Your task to perform on an android device: Open eBay Image 0: 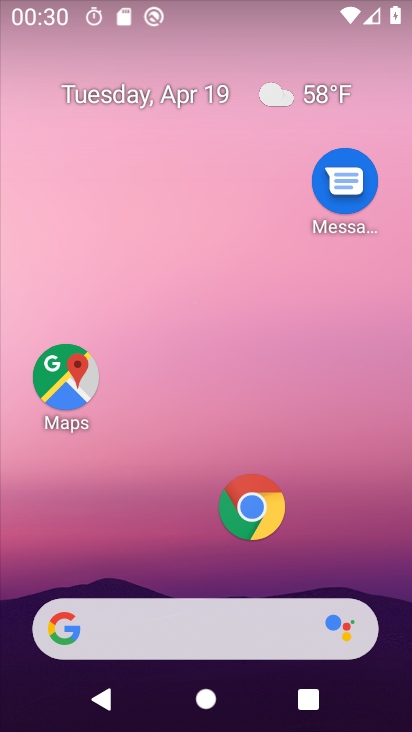
Step 0: click (270, 496)
Your task to perform on an android device: Open eBay Image 1: 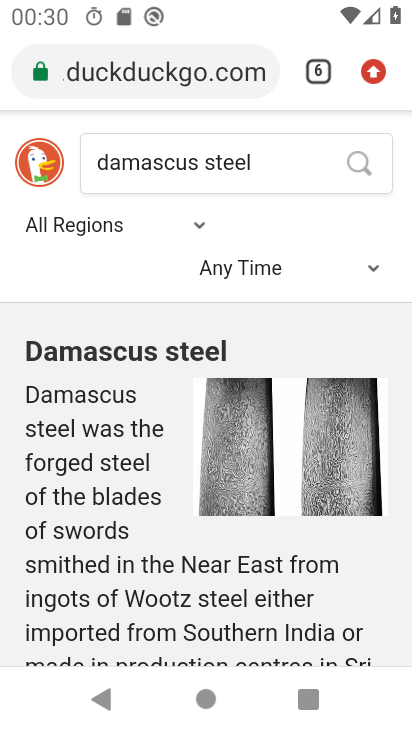
Step 1: click (170, 77)
Your task to perform on an android device: Open eBay Image 2: 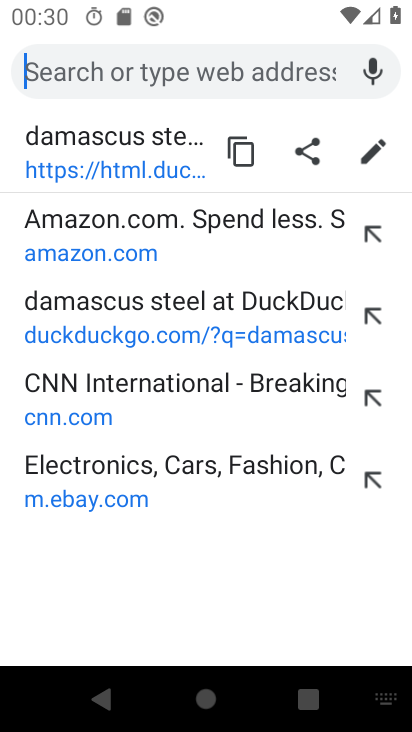
Step 2: type "eBay"
Your task to perform on an android device: Open eBay Image 3: 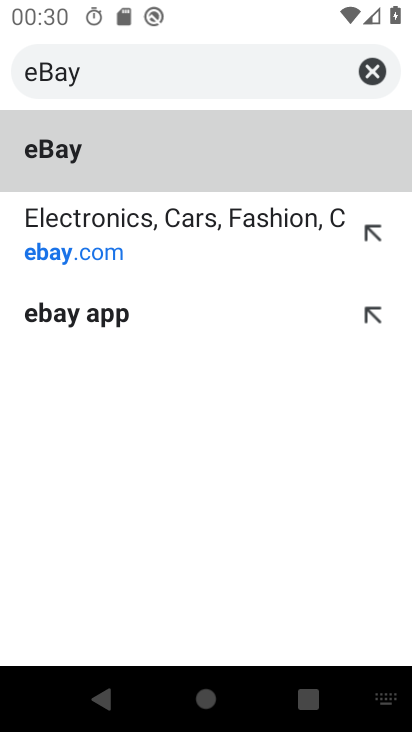
Step 3: click (173, 152)
Your task to perform on an android device: Open eBay Image 4: 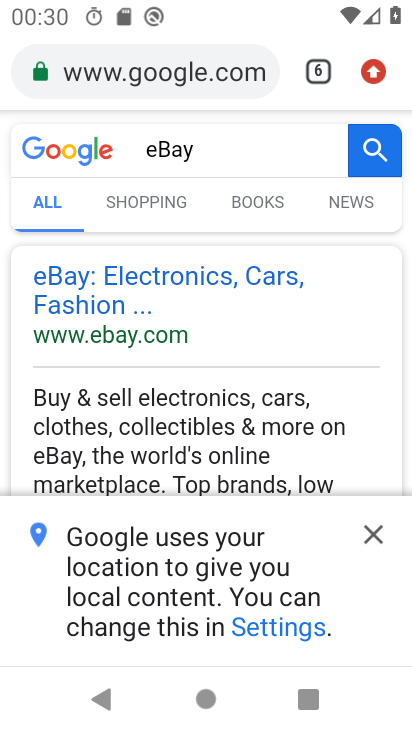
Step 4: task complete